Your task to perform on an android device: Go to wifi settings Image 0: 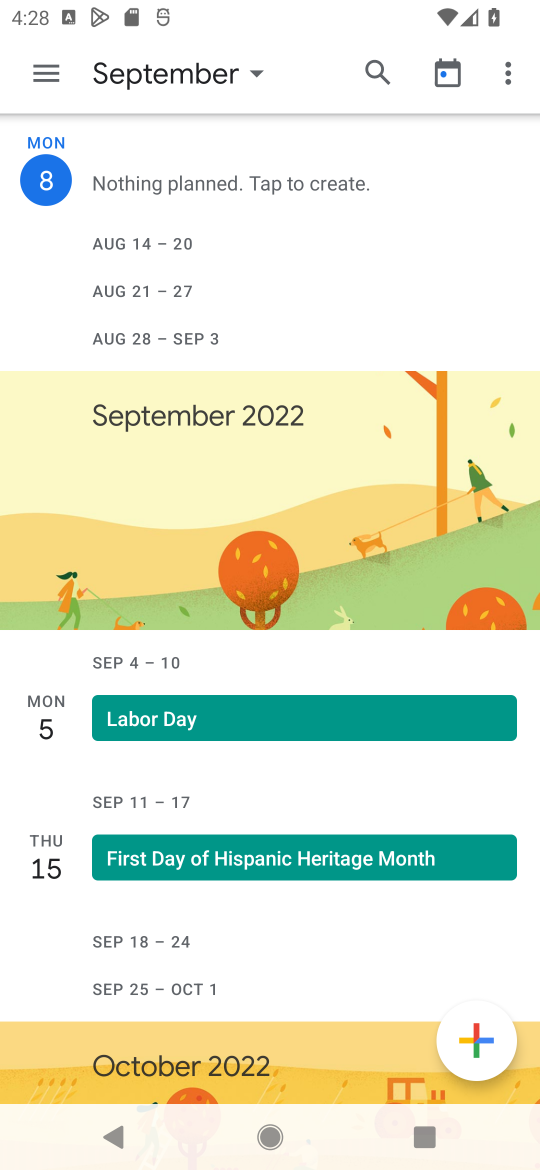
Step 0: drag from (266, 7) to (181, 1166)
Your task to perform on an android device: Go to wifi settings Image 1: 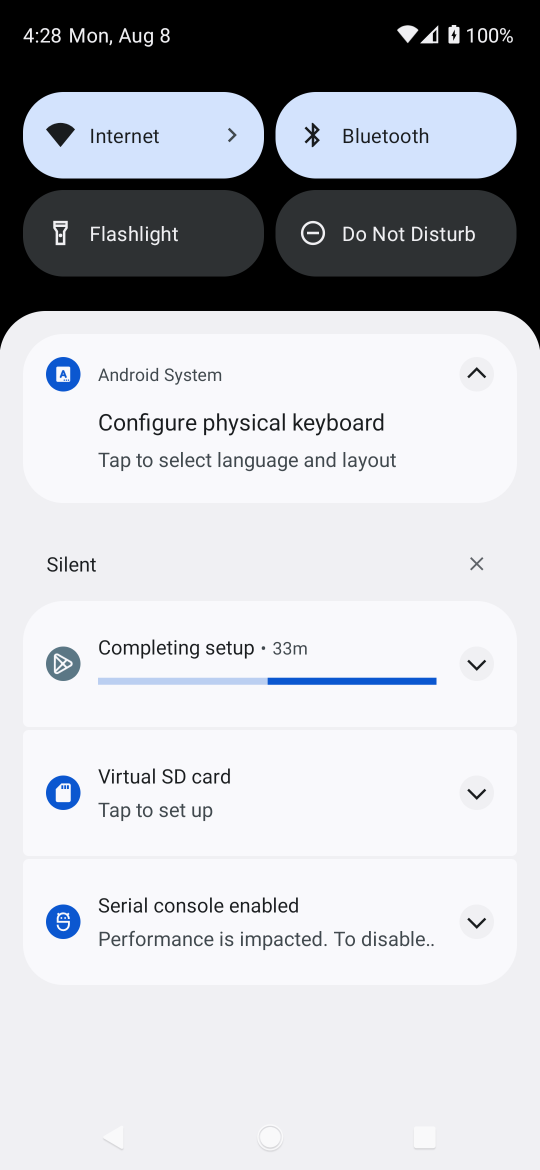
Step 1: click (179, 144)
Your task to perform on an android device: Go to wifi settings Image 2: 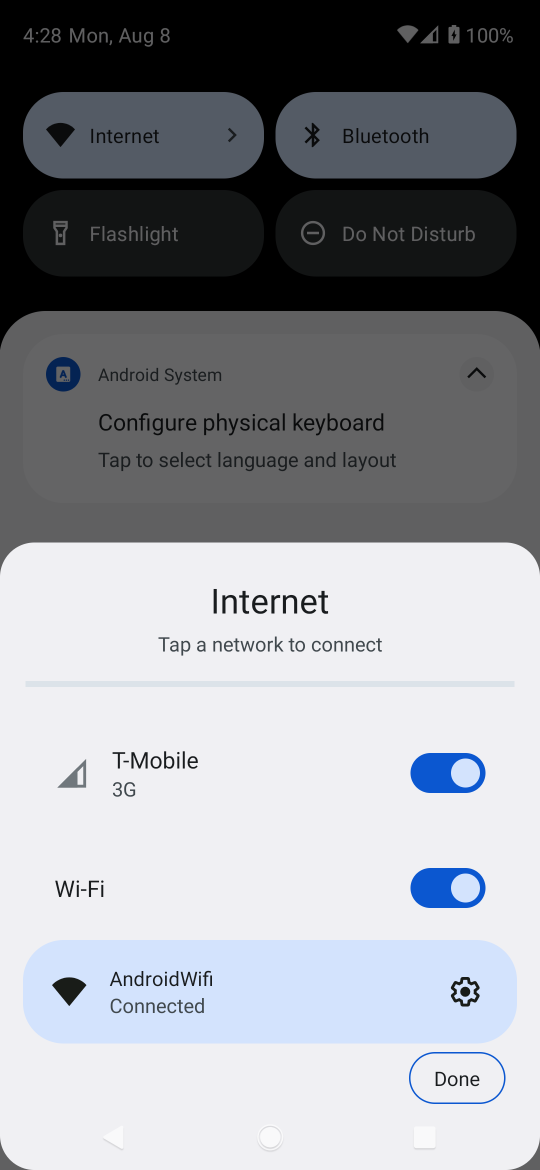
Step 2: click (464, 1001)
Your task to perform on an android device: Go to wifi settings Image 3: 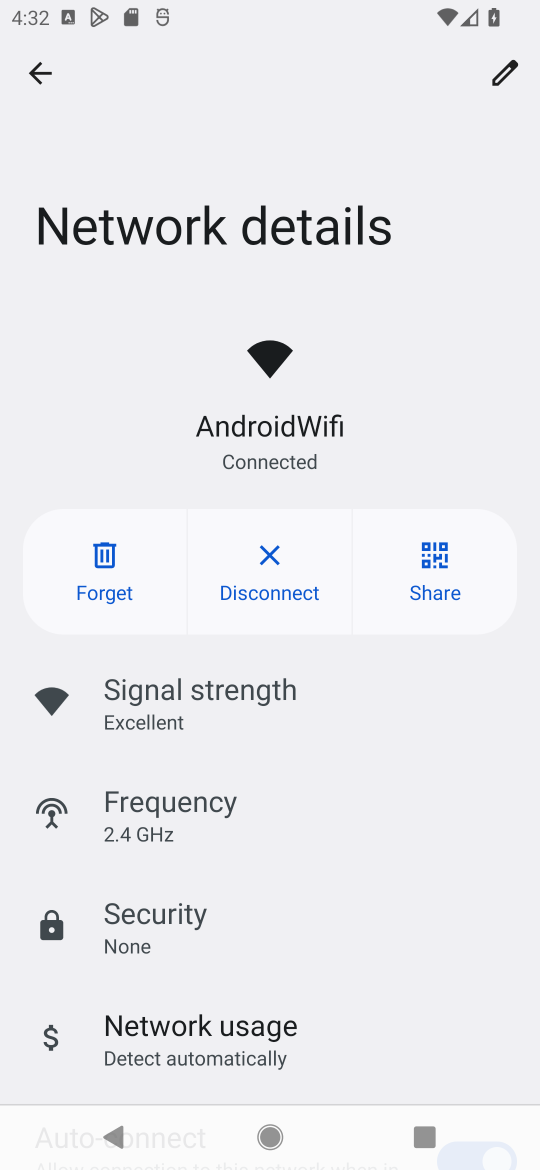
Step 3: task complete